Your task to perform on an android device: Open settings Image 0: 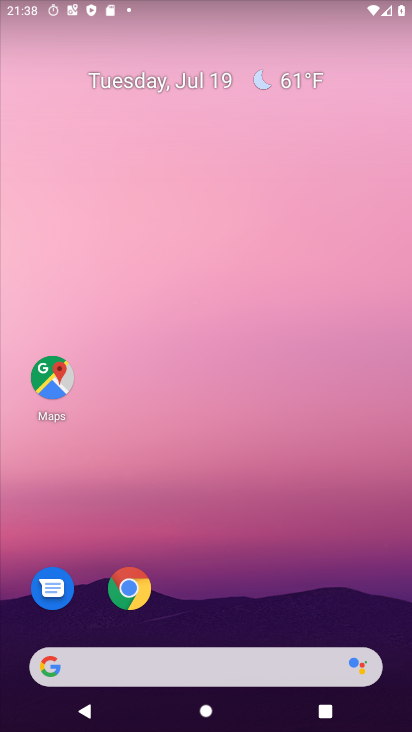
Step 0: press home button
Your task to perform on an android device: Open settings Image 1: 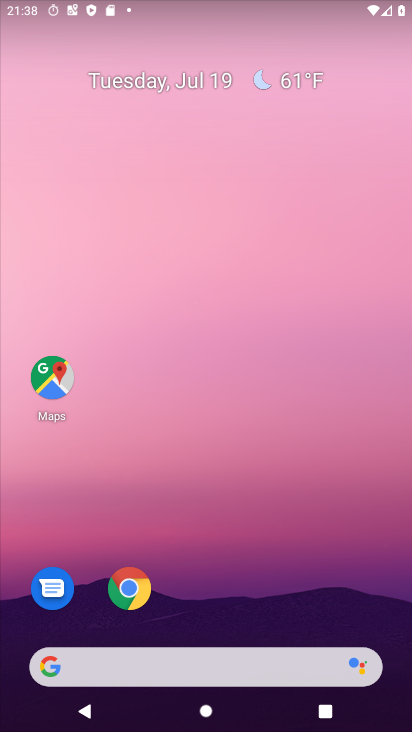
Step 1: drag from (212, 627) to (231, 54)
Your task to perform on an android device: Open settings Image 2: 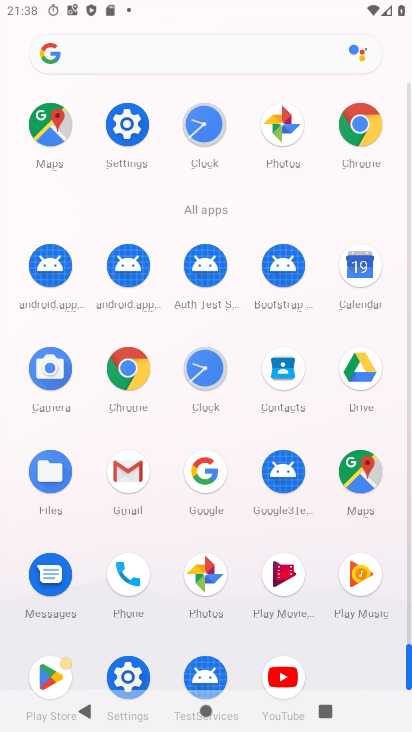
Step 2: click (125, 118)
Your task to perform on an android device: Open settings Image 3: 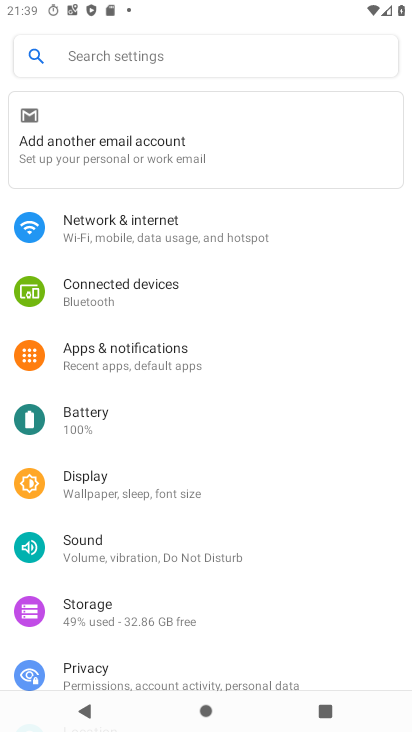
Step 3: task complete